Your task to perform on an android device: visit the assistant section in the google photos Image 0: 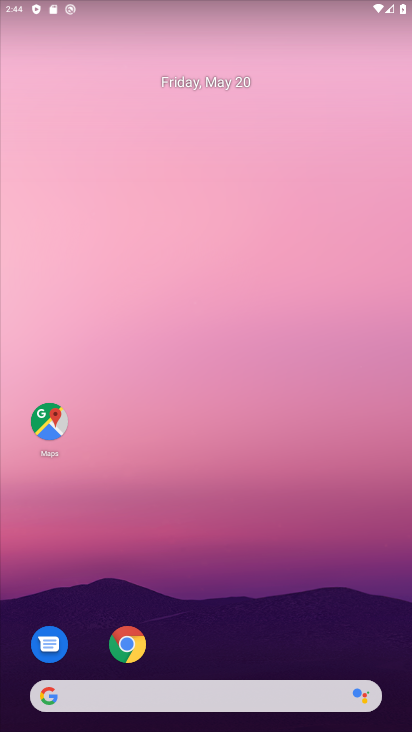
Step 0: drag from (256, 625) to (205, 72)
Your task to perform on an android device: visit the assistant section in the google photos Image 1: 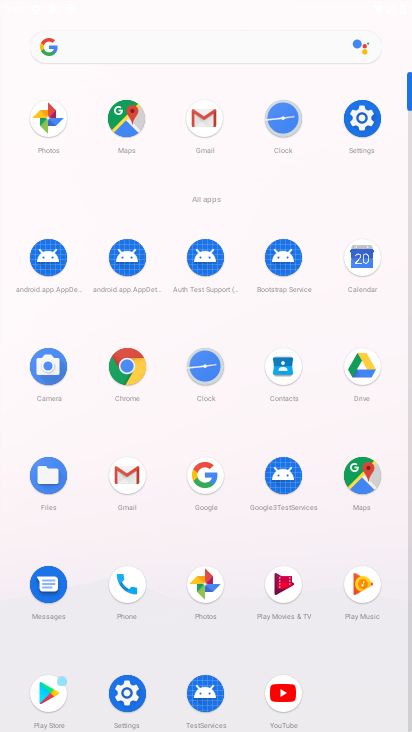
Step 1: click (207, 584)
Your task to perform on an android device: visit the assistant section in the google photos Image 2: 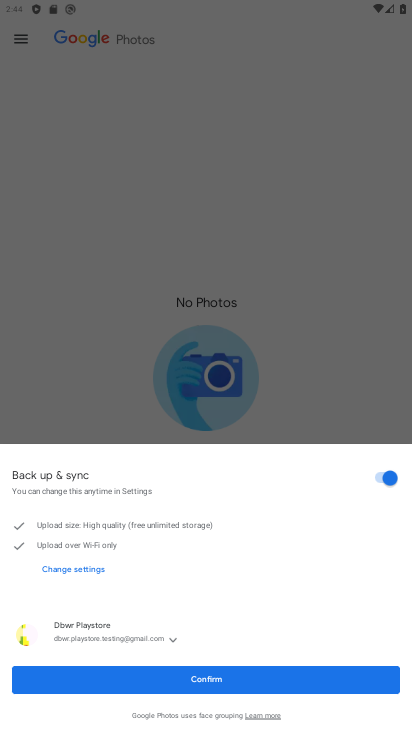
Step 2: click (197, 684)
Your task to perform on an android device: visit the assistant section in the google photos Image 3: 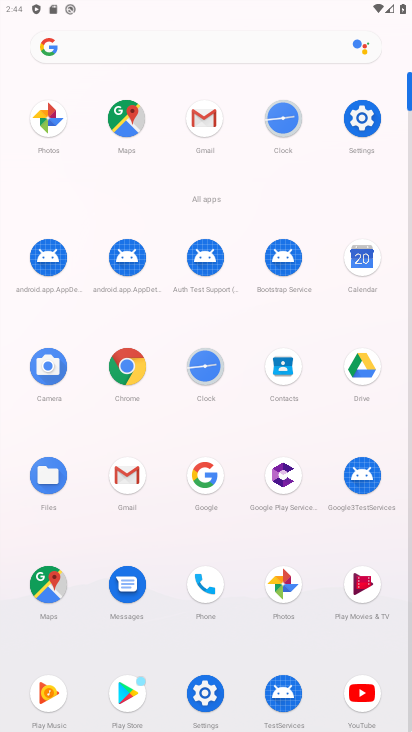
Step 3: click (206, 581)
Your task to perform on an android device: visit the assistant section in the google photos Image 4: 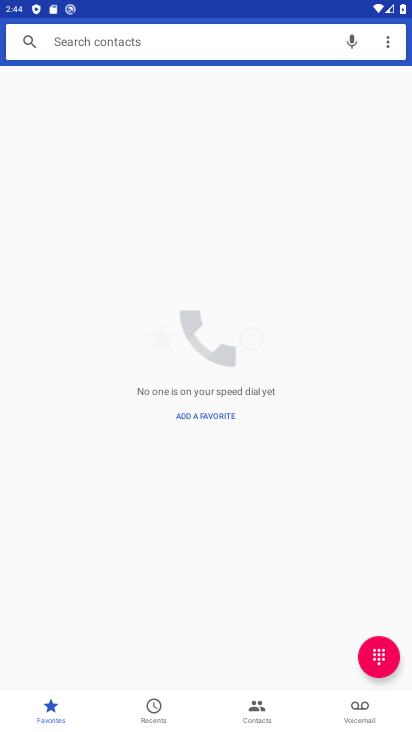
Step 4: press back button
Your task to perform on an android device: visit the assistant section in the google photos Image 5: 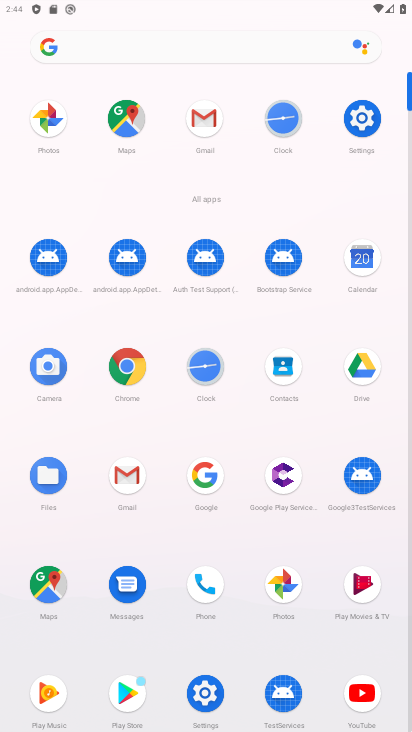
Step 5: click (280, 588)
Your task to perform on an android device: visit the assistant section in the google photos Image 6: 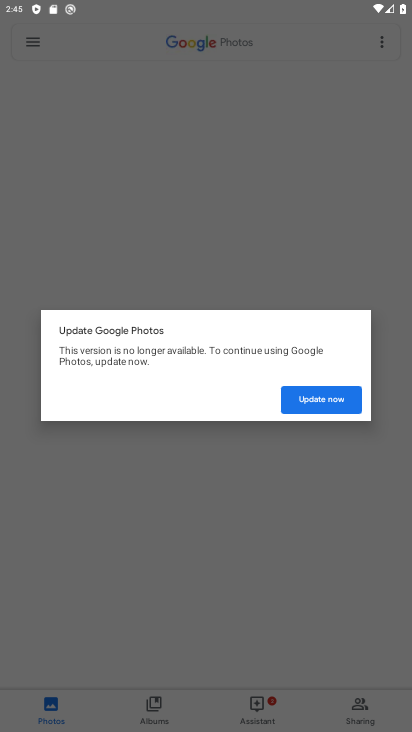
Step 6: click (332, 406)
Your task to perform on an android device: visit the assistant section in the google photos Image 7: 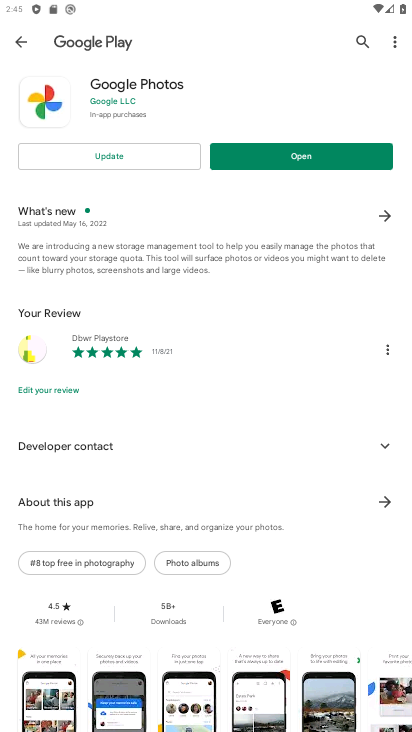
Step 7: click (141, 158)
Your task to perform on an android device: visit the assistant section in the google photos Image 8: 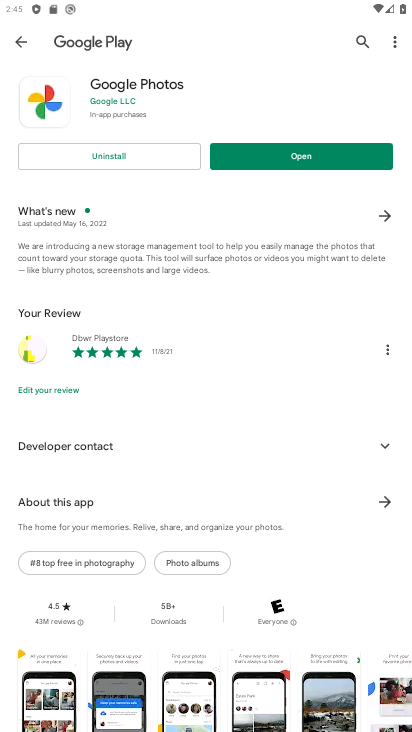
Step 8: click (312, 147)
Your task to perform on an android device: visit the assistant section in the google photos Image 9: 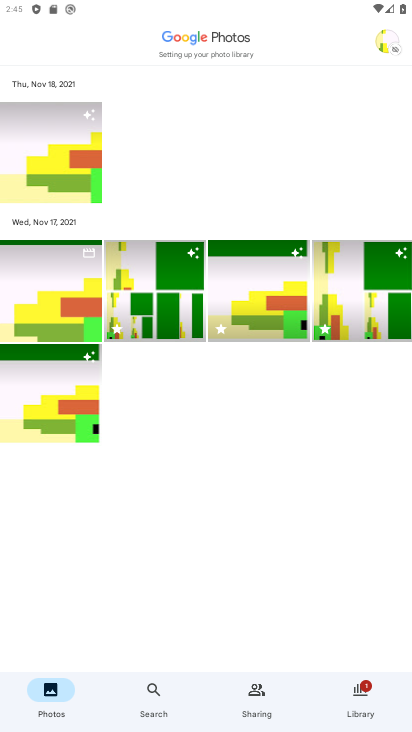
Step 9: click (388, 40)
Your task to perform on an android device: visit the assistant section in the google photos Image 10: 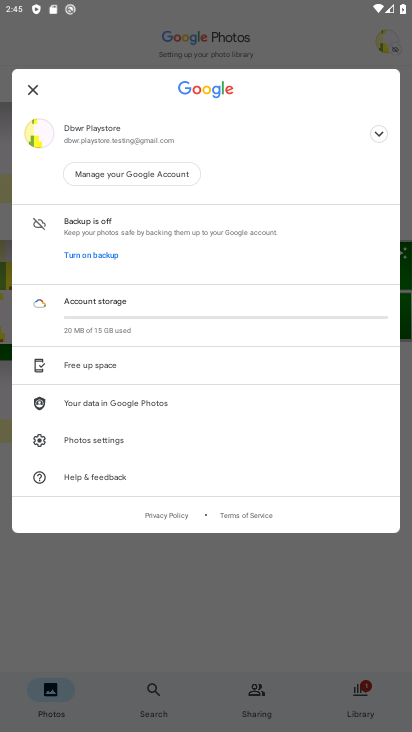
Step 10: click (268, 555)
Your task to perform on an android device: visit the assistant section in the google photos Image 11: 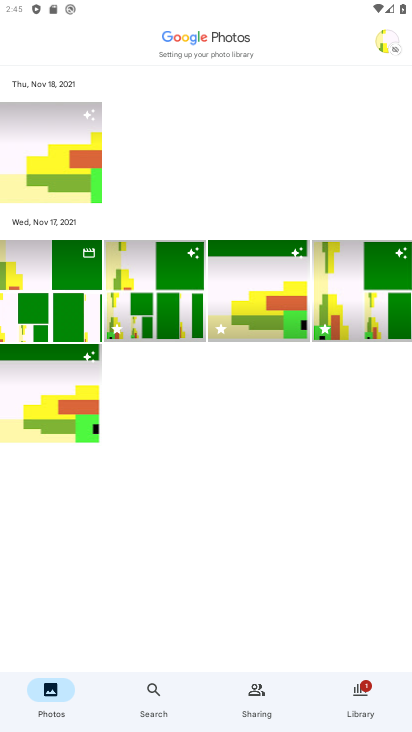
Step 11: click (262, 688)
Your task to perform on an android device: visit the assistant section in the google photos Image 12: 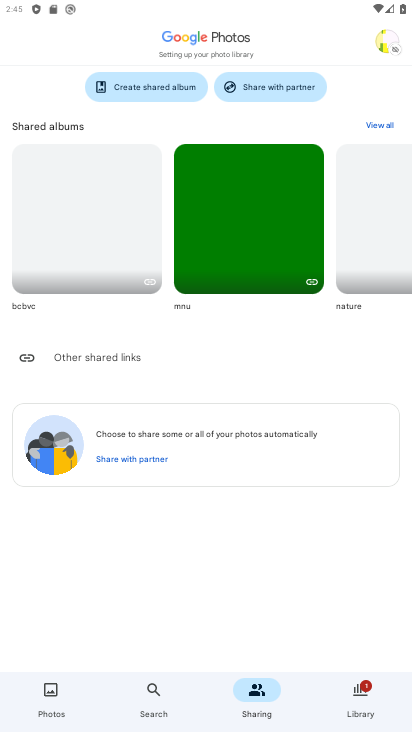
Step 12: click (365, 698)
Your task to perform on an android device: visit the assistant section in the google photos Image 13: 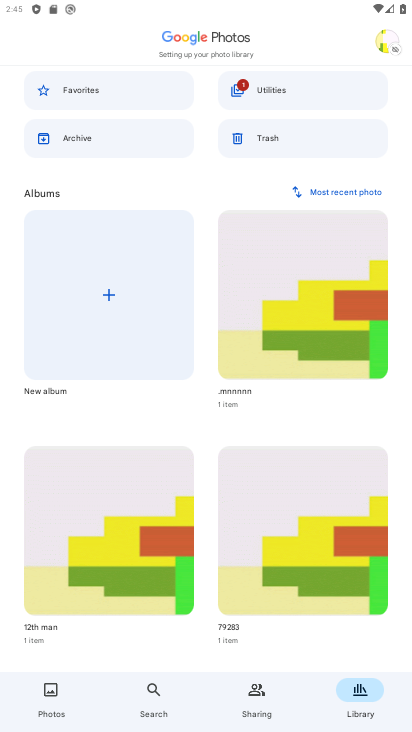
Step 13: click (256, 83)
Your task to perform on an android device: visit the assistant section in the google photos Image 14: 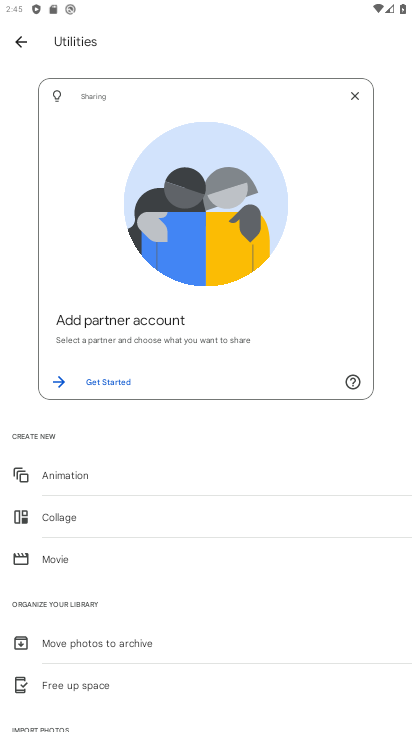
Step 14: task complete